Your task to perform on an android device: Open Google Chrome and click the shortcut for Amazon.com Image 0: 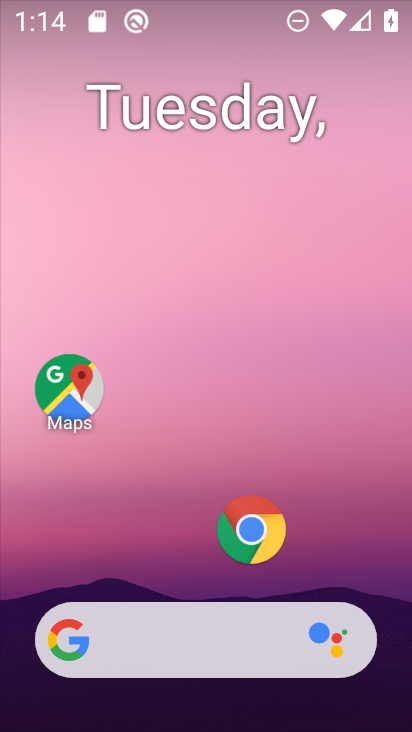
Step 0: drag from (231, 684) to (323, 199)
Your task to perform on an android device: Open Google Chrome and click the shortcut for Amazon.com Image 1: 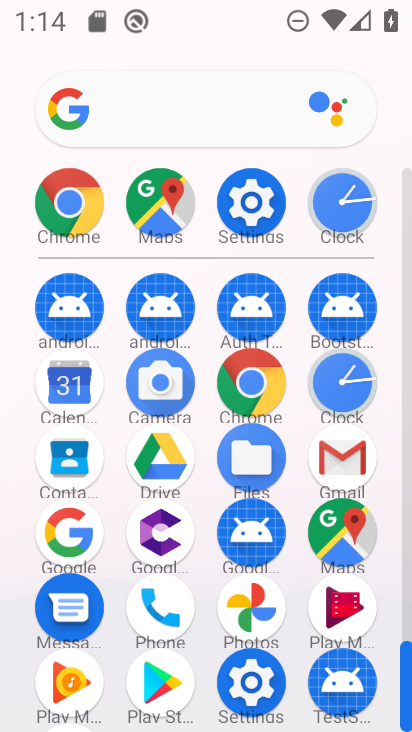
Step 1: click (90, 212)
Your task to perform on an android device: Open Google Chrome and click the shortcut for Amazon.com Image 2: 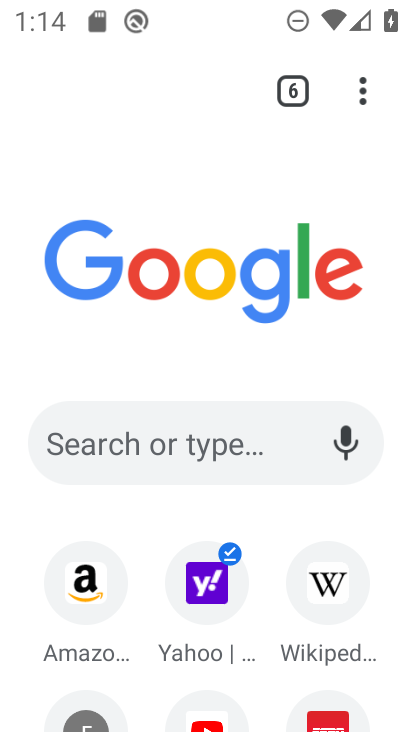
Step 2: click (361, 103)
Your task to perform on an android device: Open Google Chrome and click the shortcut for Amazon.com Image 3: 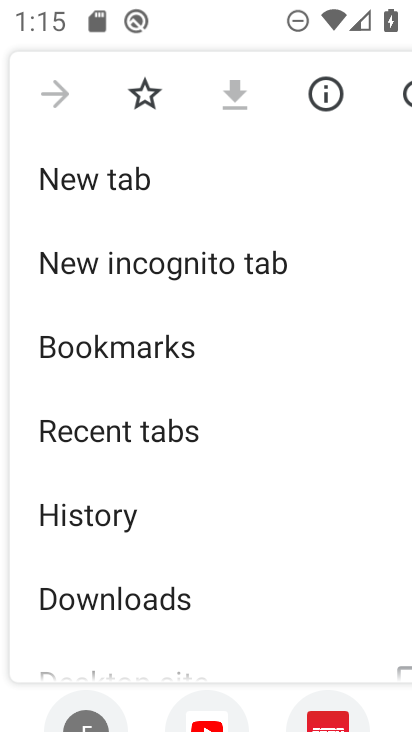
Step 3: drag from (158, 620) to (186, 397)
Your task to perform on an android device: Open Google Chrome and click the shortcut for Amazon.com Image 4: 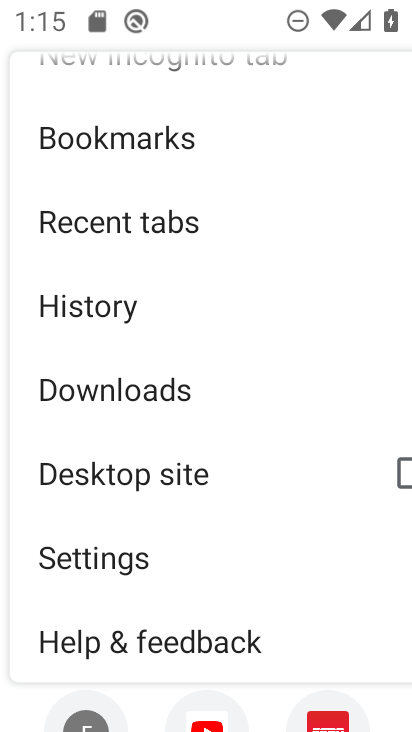
Step 4: drag from (163, 308) to (140, 493)
Your task to perform on an android device: Open Google Chrome and click the shortcut for Amazon.com Image 5: 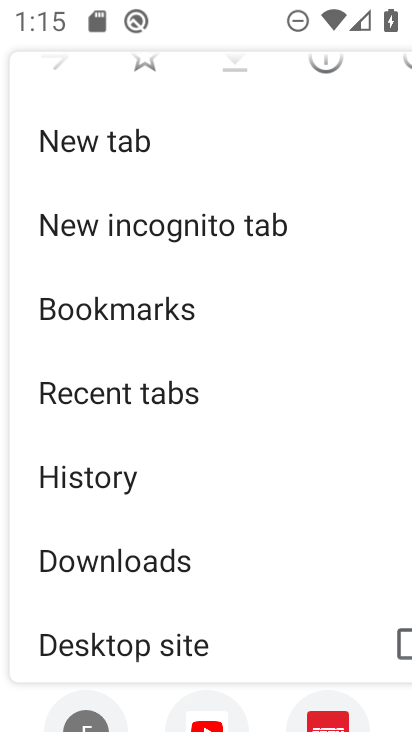
Step 5: click (126, 538)
Your task to perform on an android device: Open Google Chrome and click the shortcut for Amazon.com Image 6: 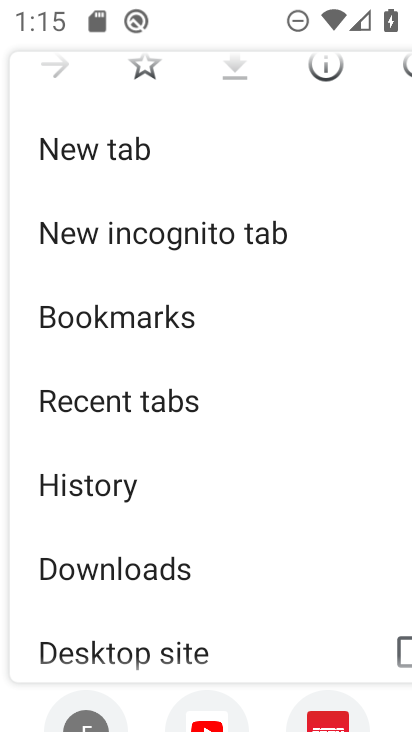
Step 6: click (84, 147)
Your task to perform on an android device: Open Google Chrome and click the shortcut for Amazon.com Image 7: 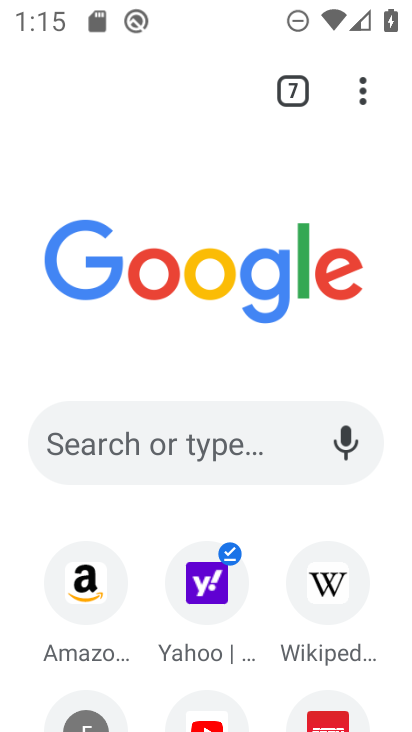
Step 7: click (103, 560)
Your task to perform on an android device: Open Google Chrome and click the shortcut for Amazon.com Image 8: 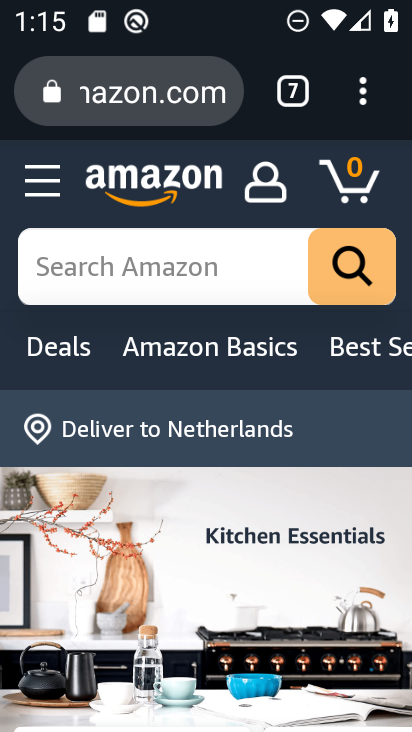
Step 8: click (369, 89)
Your task to perform on an android device: Open Google Chrome and click the shortcut for Amazon.com Image 9: 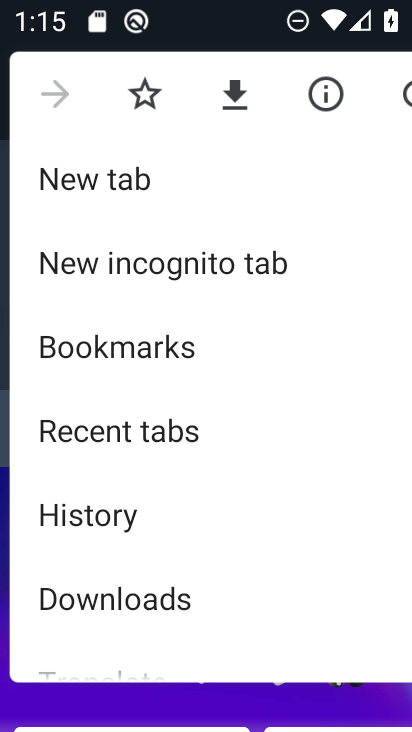
Step 9: drag from (185, 605) to (256, 272)
Your task to perform on an android device: Open Google Chrome and click the shortcut for Amazon.com Image 10: 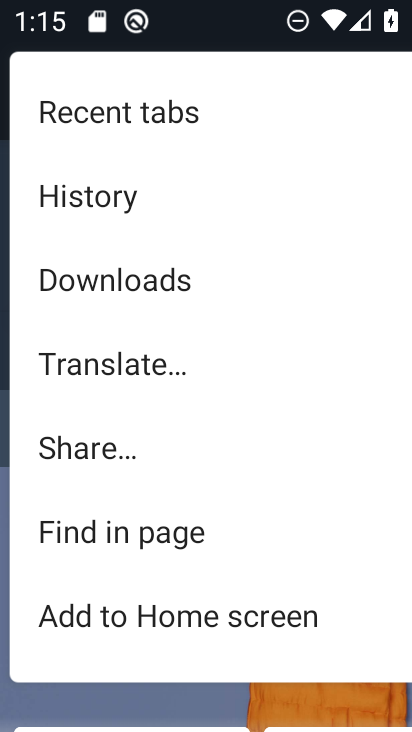
Step 10: click (106, 607)
Your task to perform on an android device: Open Google Chrome and click the shortcut for Amazon.com Image 11: 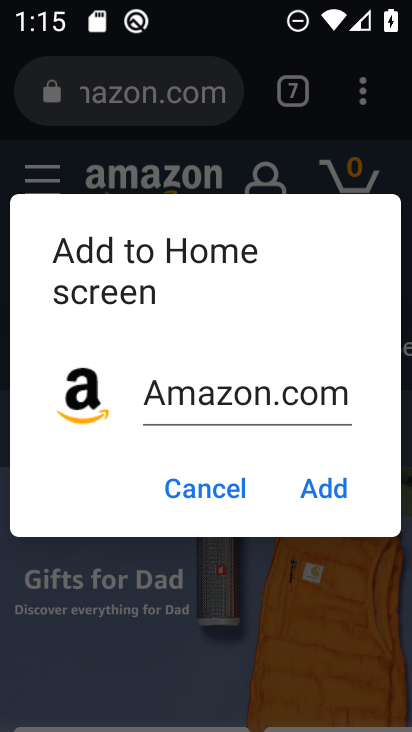
Step 11: click (314, 479)
Your task to perform on an android device: Open Google Chrome and click the shortcut for Amazon.com Image 12: 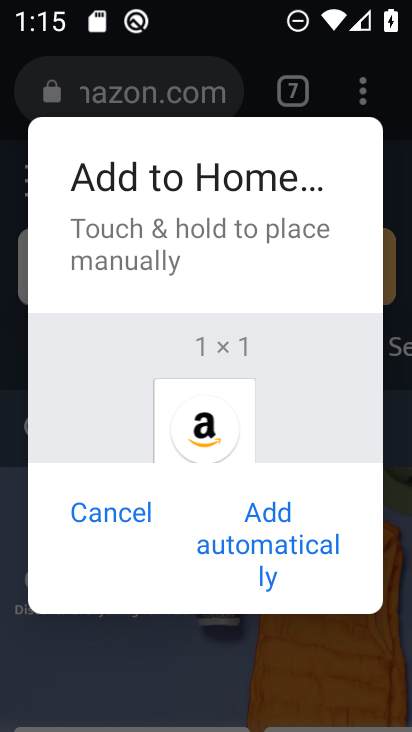
Step 12: click (256, 553)
Your task to perform on an android device: Open Google Chrome and click the shortcut for Amazon.com Image 13: 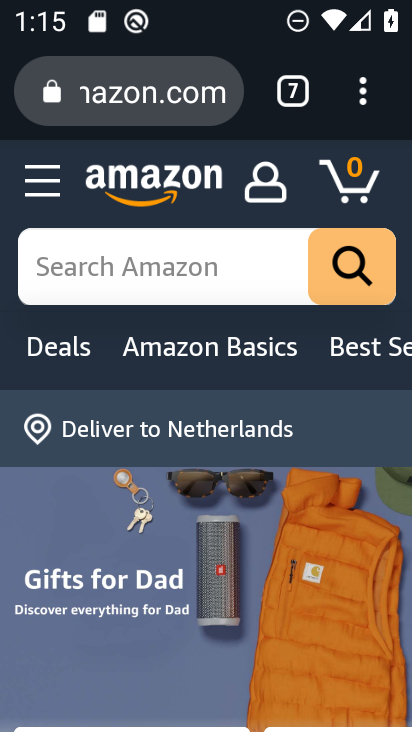
Step 13: task complete